Your task to perform on an android device: Go to Google maps Image 0: 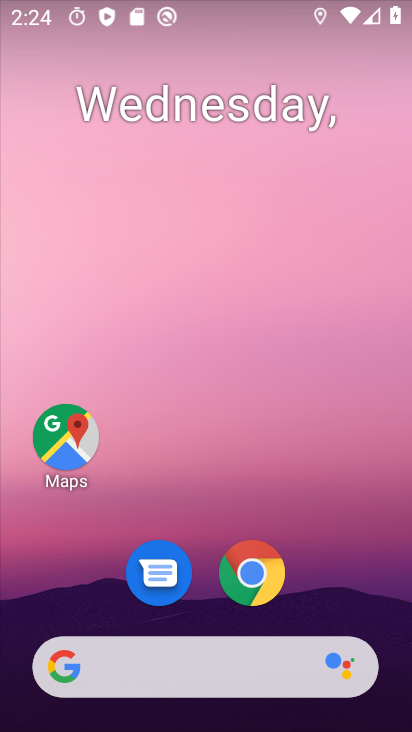
Step 0: click (61, 446)
Your task to perform on an android device: Go to Google maps Image 1: 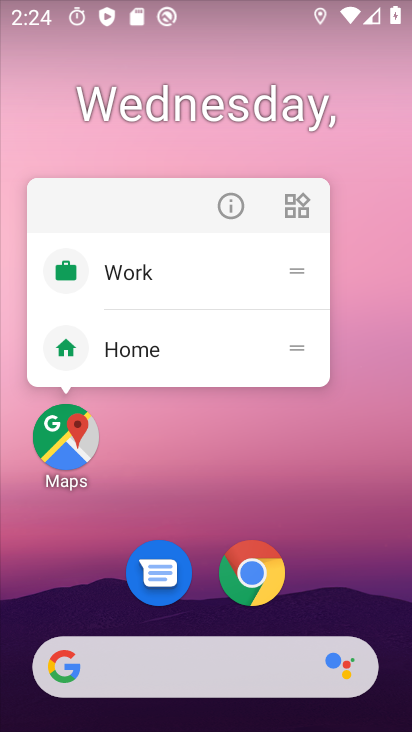
Step 1: click (53, 486)
Your task to perform on an android device: Go to Google maps Image 2: 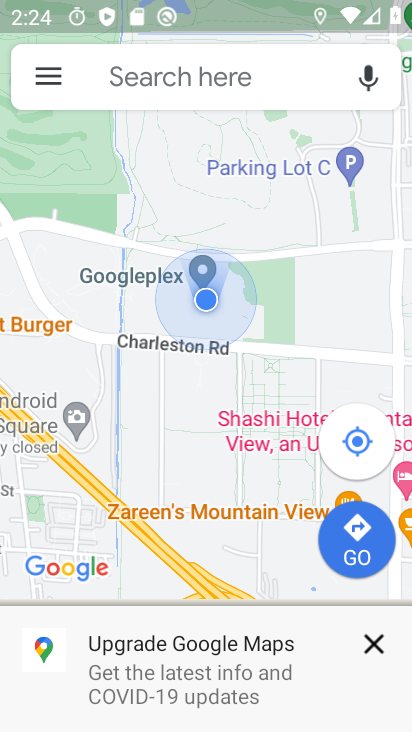
Step 2: task complete